Your task to perform on an android device: Go to Android settings Image 0: 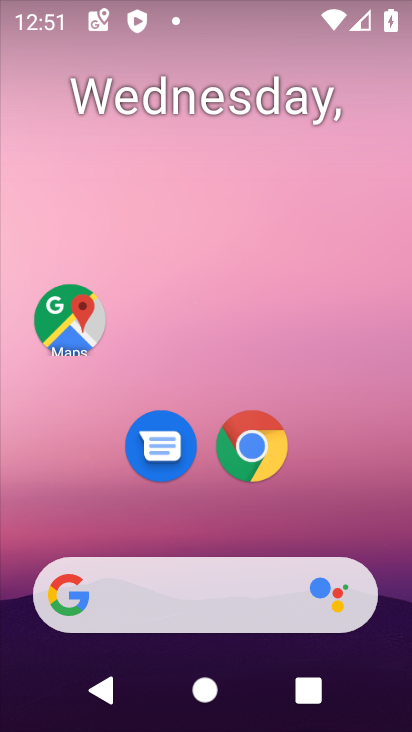
Step 0: drag from (370, 703) to (295, 405)
Your task to perform on an android device: Go to Android settings Image 1: 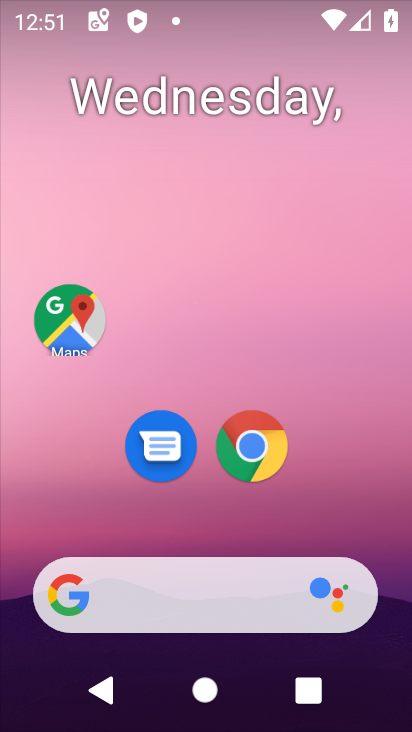
Step 1: drag from (351, 584) to (280, 329)
Your task to perform on an android device: Go to Android settings Image 2: 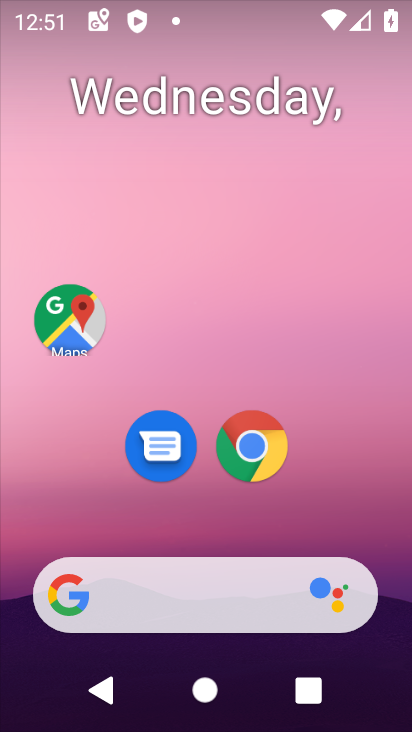
Step 2: drag from (364, 623) to (307, 375)
Your task to perform on an android device: Go to Android settings Image 3: 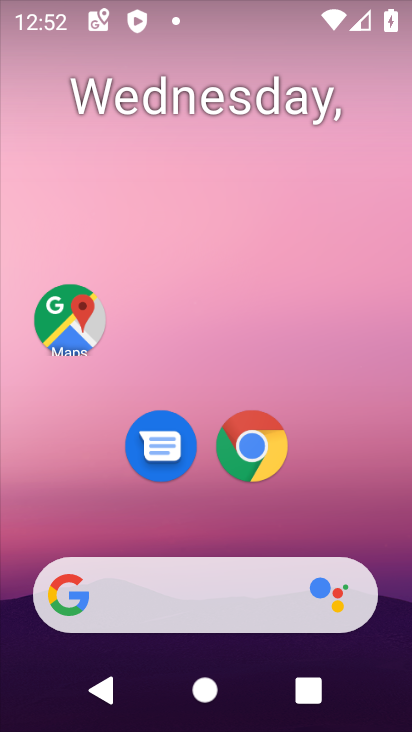
Step 3: drag from (345, 597) to (289, 325)
Your task to perform on an android device: Go to Android settings Image 4: 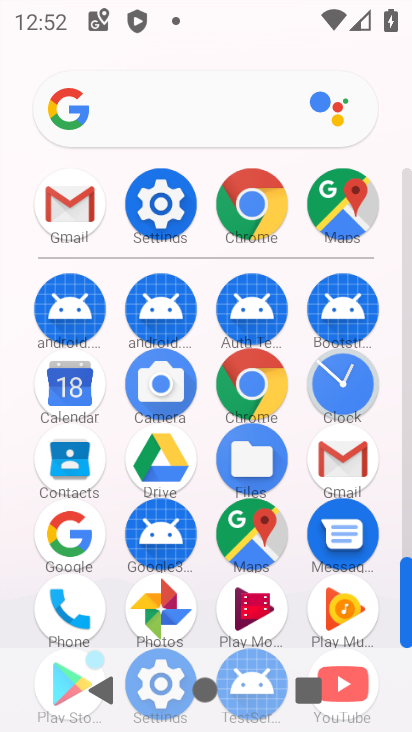
Step 4: click (247, 203)
Your task to perform on an android device: Go to Android settings Image 5: 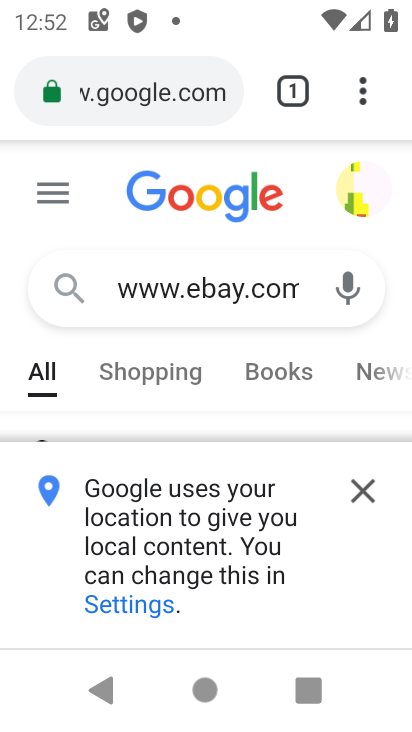
Step 5: press back button
Your task to perform on an android device: Go to Android settings Image 6: 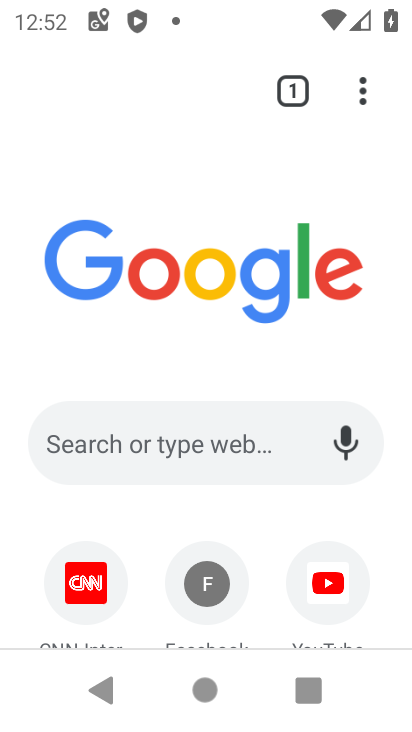
Step 6: press home button
Your task to perform on an android device: Go to Android settings Image 7: 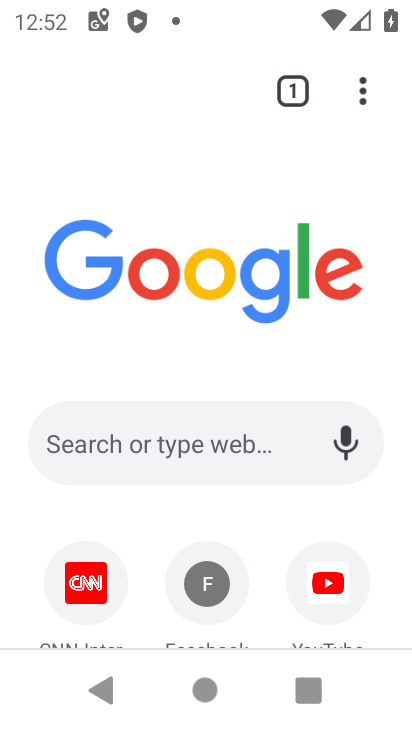
Step 7: press home button
Your task to perform on an android device: Go to Android settings Image 8: 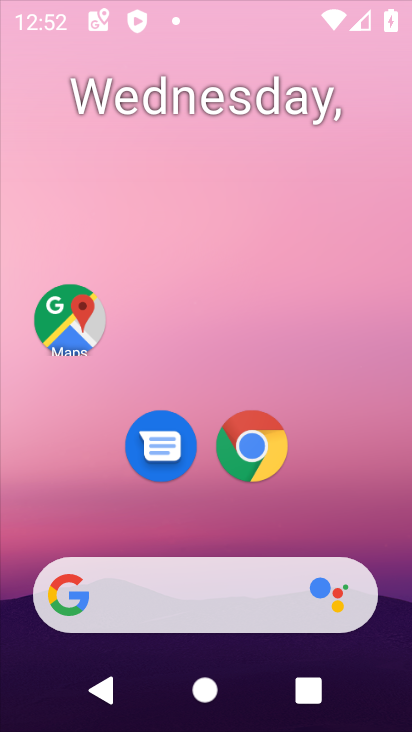
Step 8: press home button
Your task to perform on an android device: Go to Android settings Image 9: 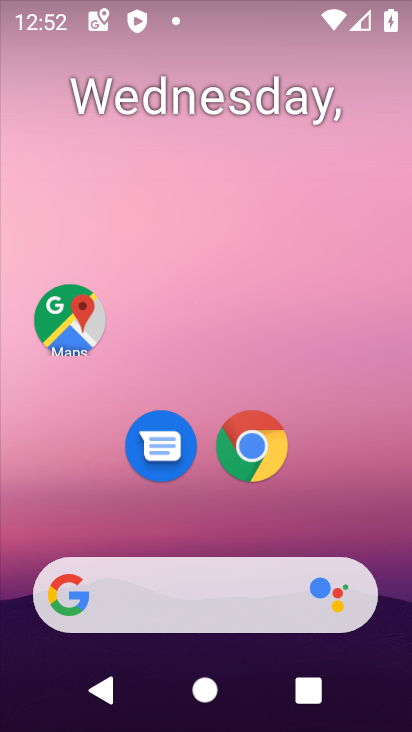
Step 9: press home button
Your task to perform on an android device: Go to Android settings Image 10: 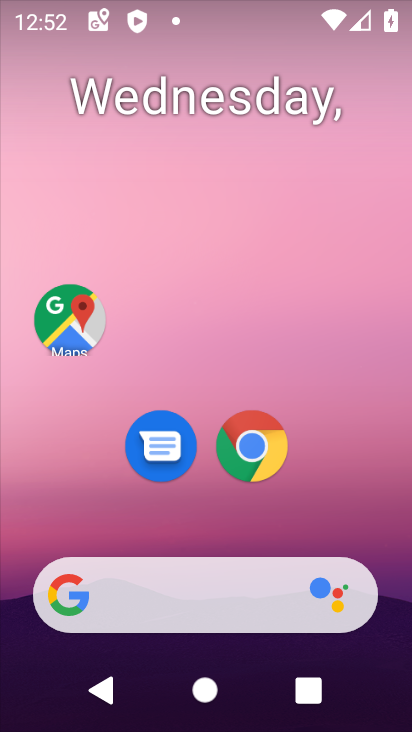
Step 10: drag from (324, 583) to (150, 210)
Your task to perform on an android device: Go to Android settings Image 11: 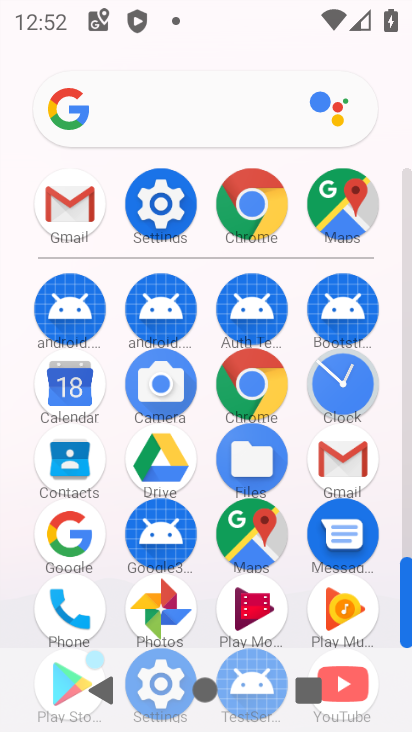
Step 11: click (152, 211)
Your task to perform on an android device: Go to Android settings Image 12: 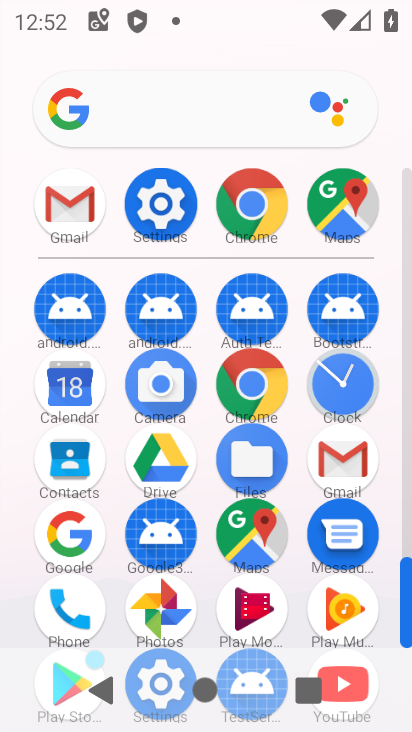
Step 12: click (152, 211)
Your task to perform on an android device: Go to Android settings Image 13: 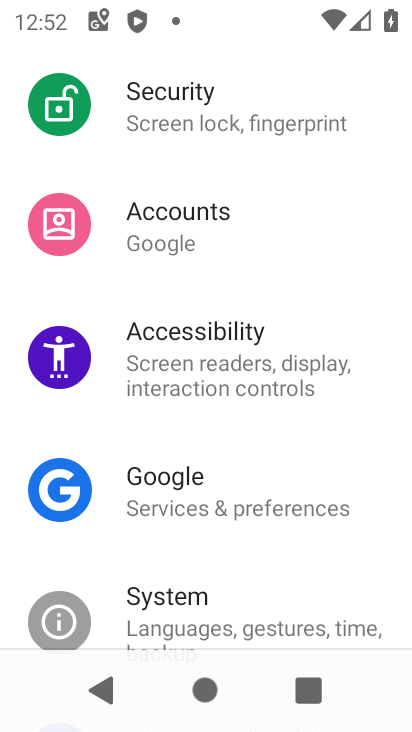
Step 13: click (153, 211)
Your task to perform on an android device: Go to Android settings Image 14: 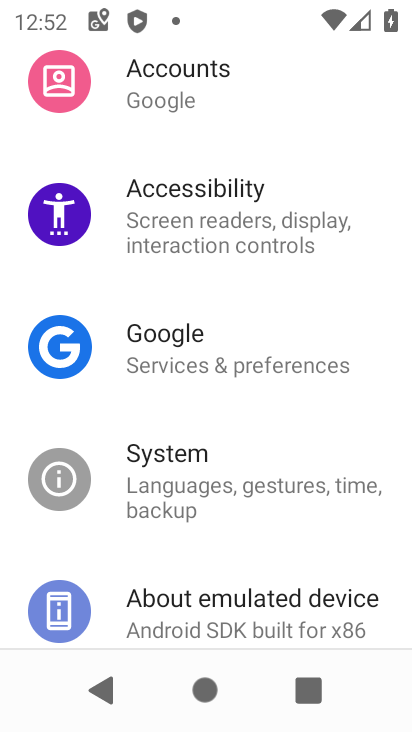
Step 14: click (153, 211)
Your task to perform on an android device: Go to Android settings Image 15: 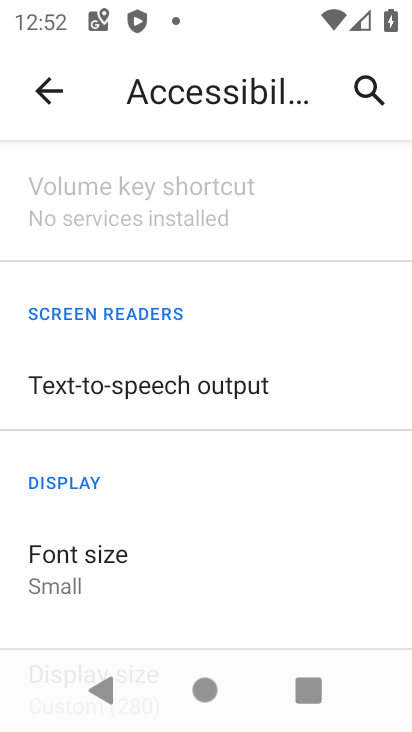
Step 15: drag from (155, 491) to (141, 203)
Your task to perform on an android device: Go to Android settings Image 16: 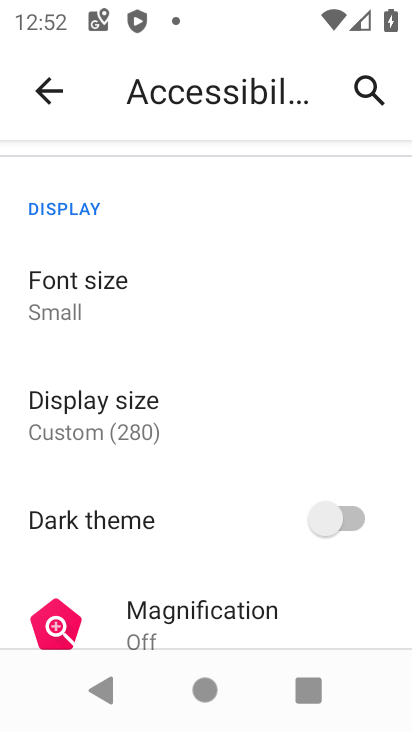
Step 16: click (37, 83)
Your task to perform on an android device: Go to Android settings Image 17: 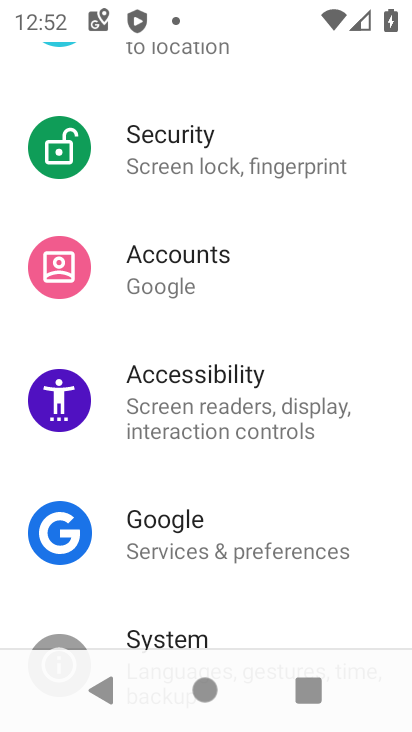
Step 17: drag from (251, 519) to (192, 23)
Your task to perform on an android device: Go to Android settings Image 18: 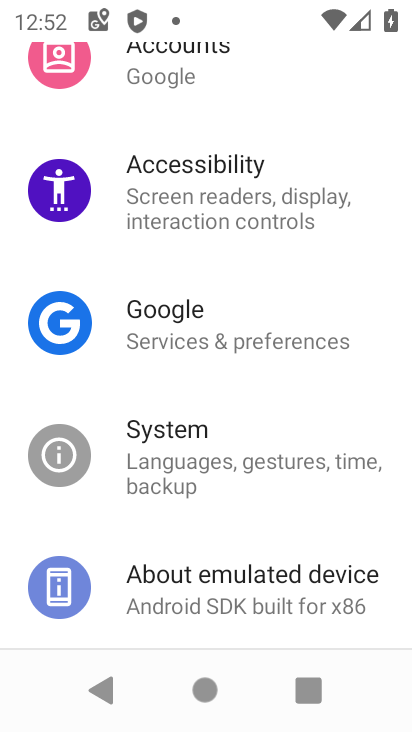
Step 18: drag from (223, 560) to (208, 516)
Your task to perform on an android device: Go to Android settings Image 19: 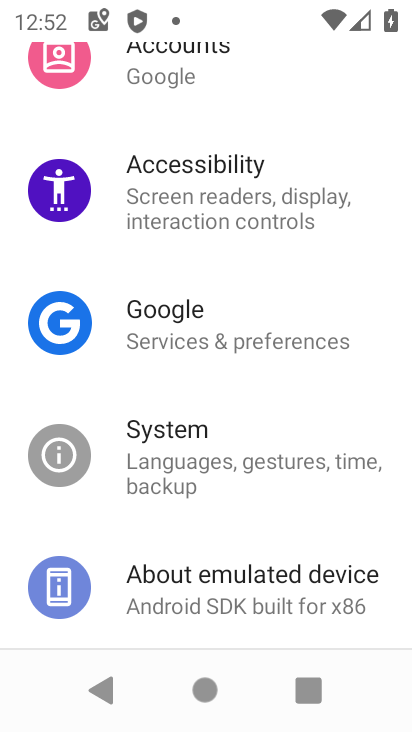
Step 19: click (253, 603)
Your task to perform on an android device: Go to Android settings Image 20: 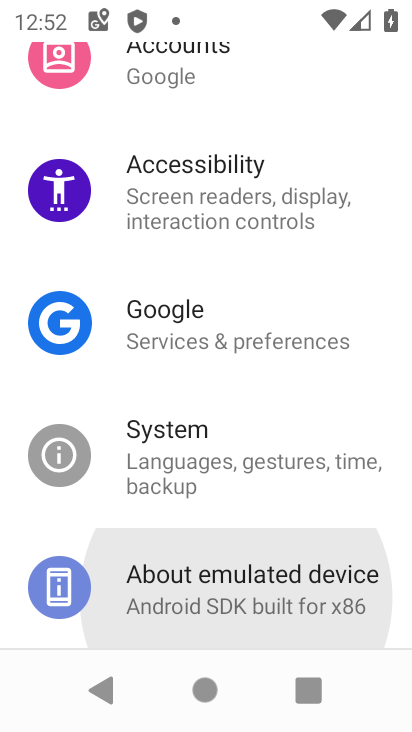
Step 20: click (250, 588)
Your task to perform on an android device: Go to Android settings Image 21: 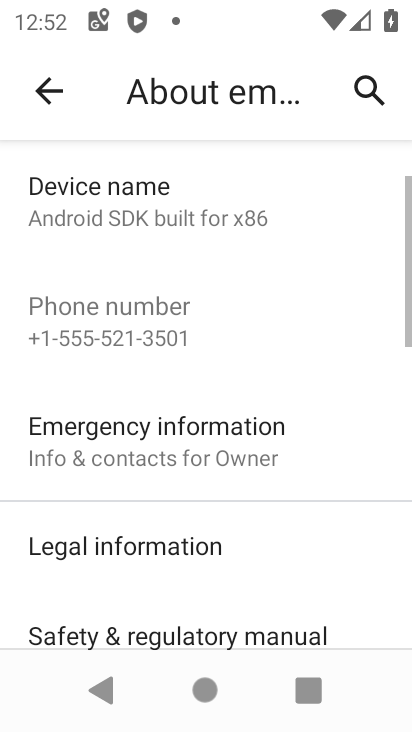
Step 21: click (272, 595)
Your task to perform on an android device: Go to Android settings Image 22: 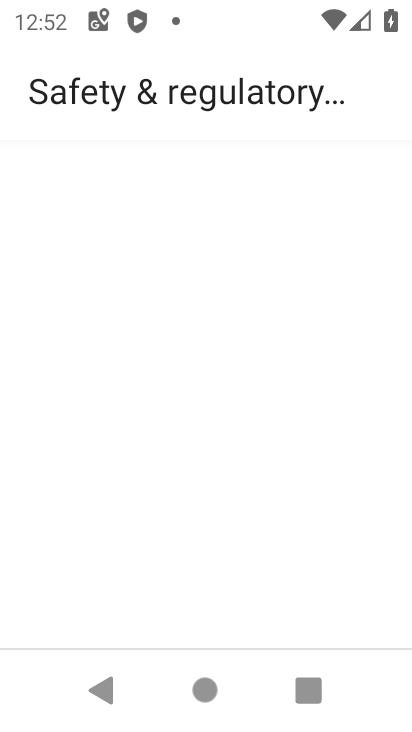
Step 22: task complete